Your task to perform on an android device: move an email to a new category in the gmail app Image 0: 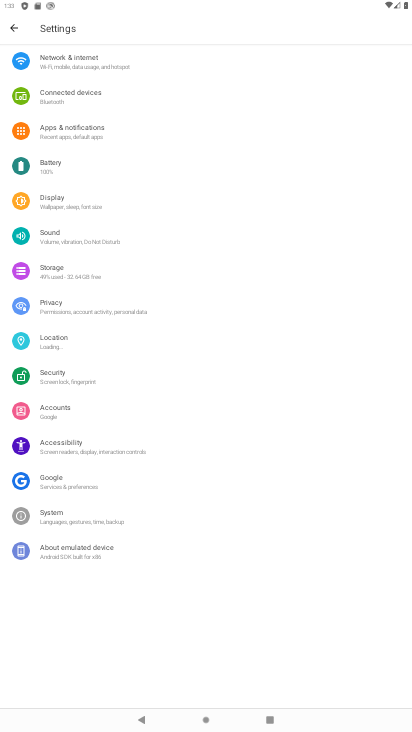
Step 0: press home button
Your task to perform on an android device: move an email to a new category in the gmail app Image 1: 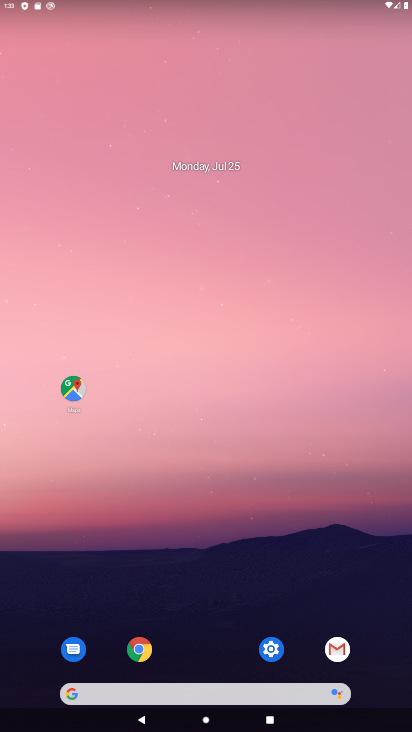
Step 1: click (335, 647)
Your task to perform on an android device: move an email to a new category in the gmail app Image 2: 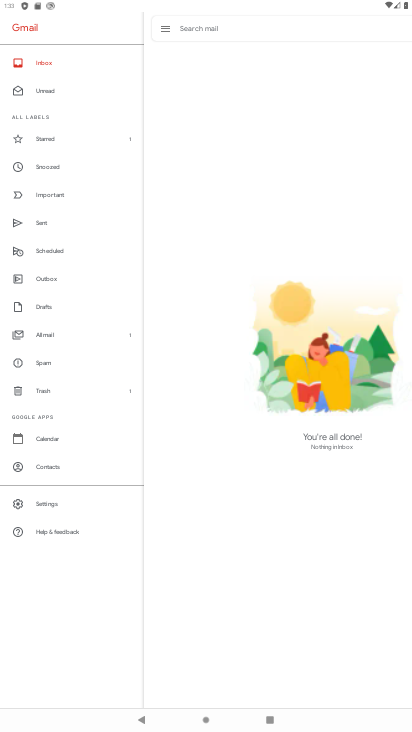
Step 2: click (31, 506)
Your task to perform on an android device: move an email to a new category in the gmail app Image 3: 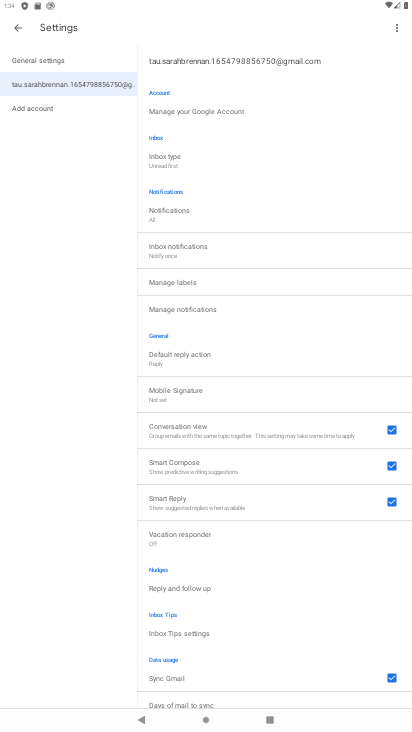
Step 3: click (190, 155)
Your task to perform on an android device: move an email to a new category in the gmail app Image 4: 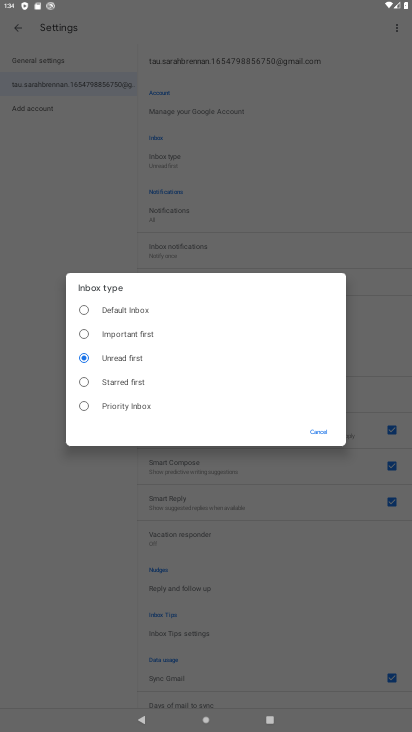
Step 4: click (116, 308)
Your task to perform on an android device: move an email to a new category in the gmail app Image 5: 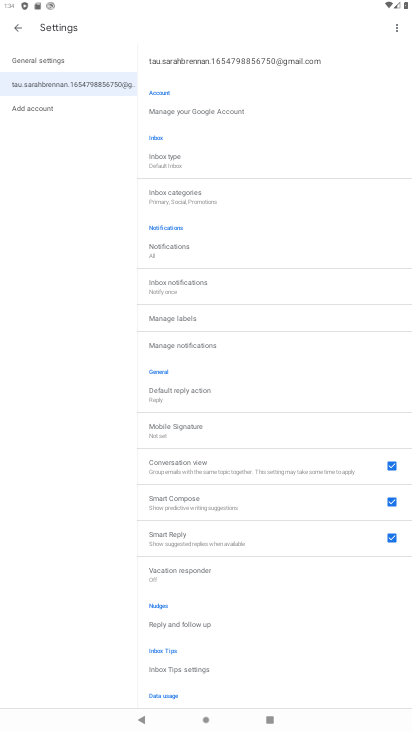
Step 5: click (198, 199)
Your task to perform on an android device: move an email to a new category in the gmail app Image 6: 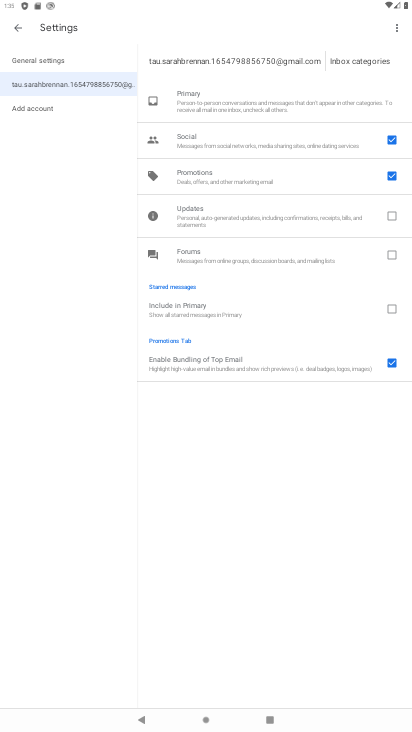
Step 6: task complete